Your task to perform on an android device: Open Chrome and go to settings Image 0: 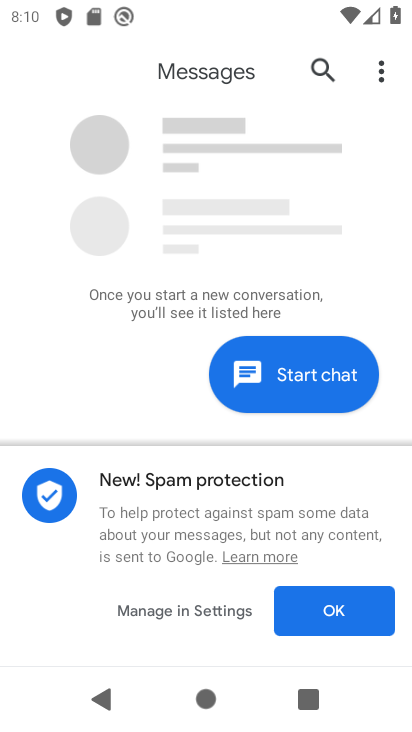
Step 0: press home button
Your task to perform on an android device: Open Chrome and go to settings Image 1: 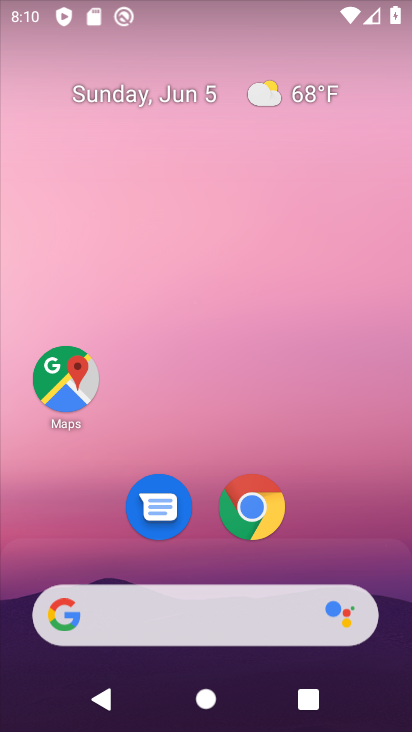
Step 1: drag from (244, 713) to (245, 24)
Your task to perform on an android device: Open Chrome and go to settings Image 2: 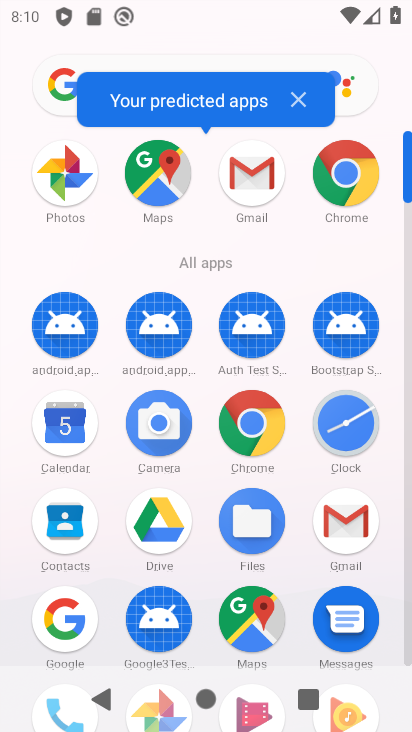
Step 2: drag from (206, 600) to (231, 258)
Your task to perform on an android device: Open Chrome and go to settings Image 3: 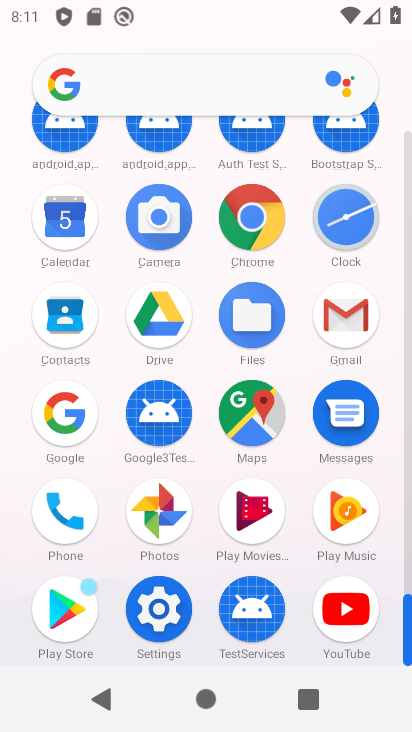
Step 3: click (158, 617)
Your task to perform on an android device: Open Chrome and go to settings Image 4: 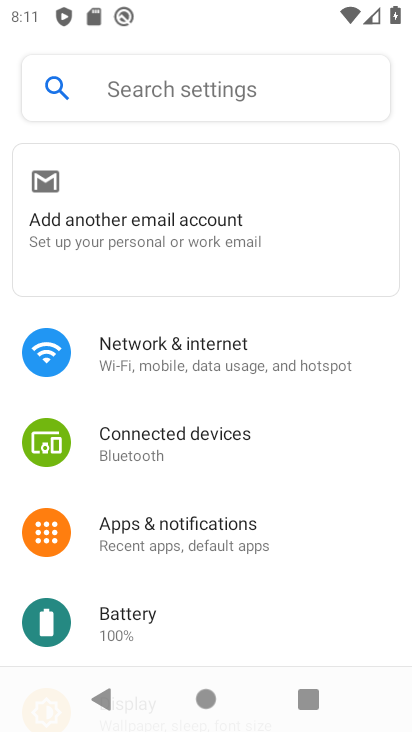
Step 4: press home button
Your task to perform on an android device: Open Chrome and go to settings Image 5: 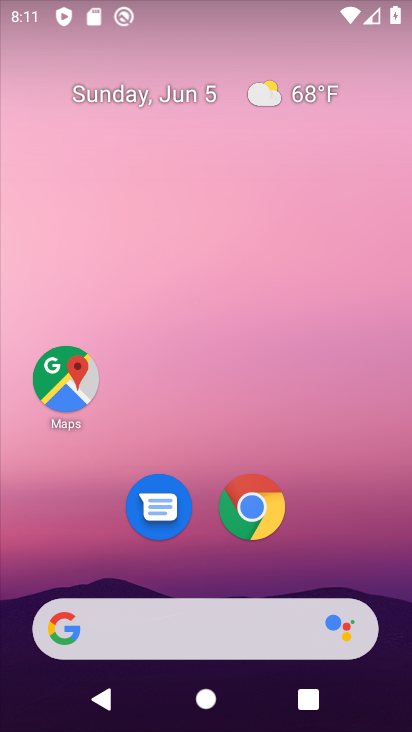
Step 5: click (260, 512)
Your task to perform on an android device: Open Chrome and go to settings Image 6: 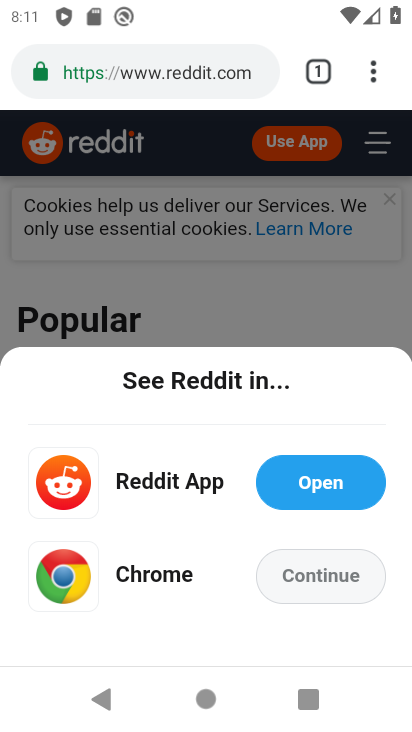
Step 6: click (375, 80)
Your task to perform on an android device: Open Chrome and go to settings Image 7: 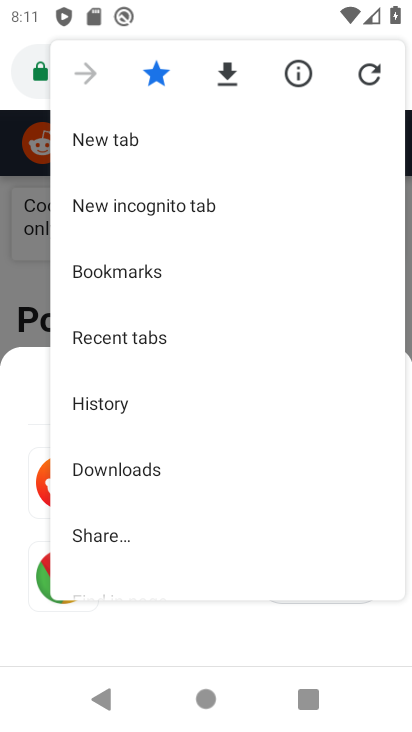
Step 7: drag from (171, 557) to (177, 222)
Your task to perform on an android device: Open Chrome and go to settings Image 8: 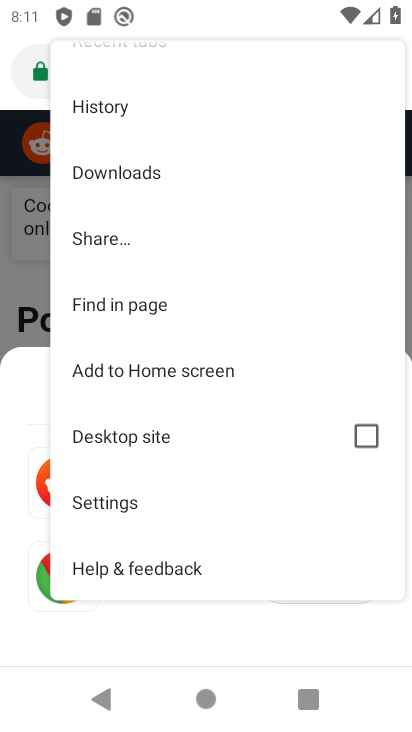
Step 8: click (113, 499)
Your task to perform on an android device: Open Chrome and go to settings Image 9: 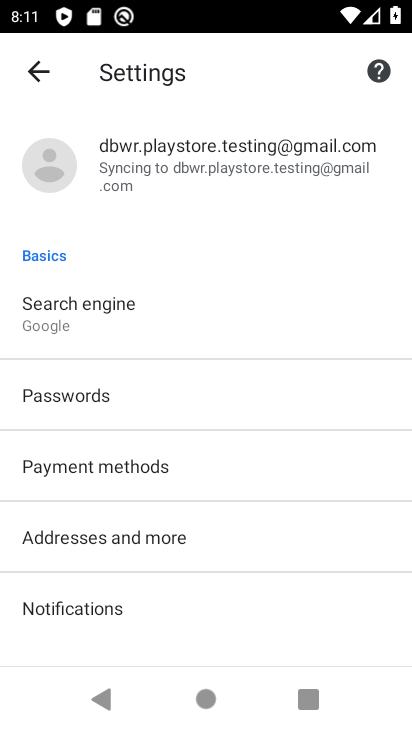
Step 9: task complete